Your task to perform on an android device: What is the capital of Italy? Image 0: 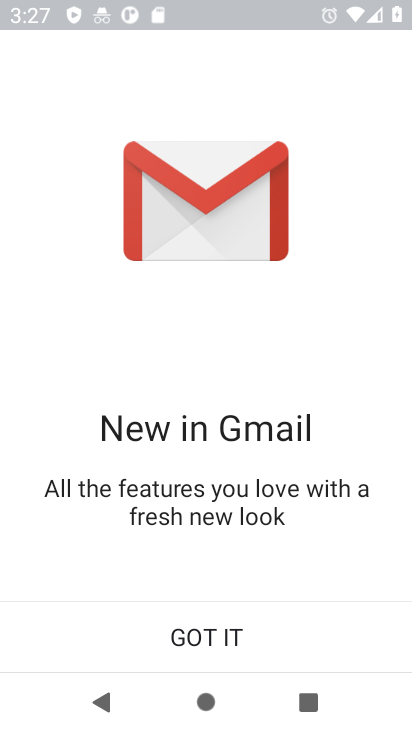
Step 0: press home button
Your task to perform on an android device: What is the capital of Italy? Image 1: 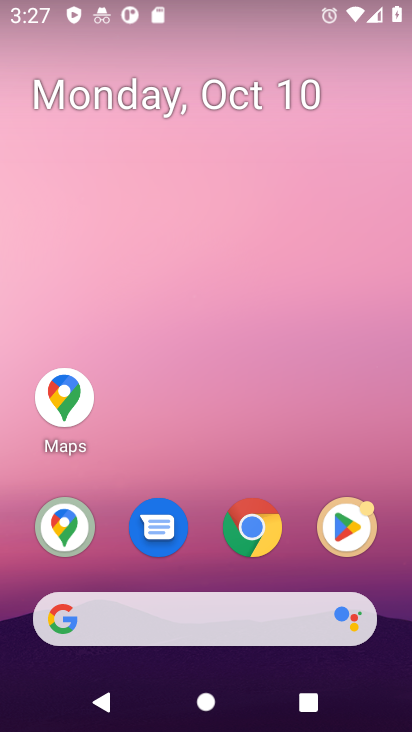
Step 1: drag from (150, 618) to (276, 154)
Your task to perform on an android device: What is the capital of Italy? Image 2: 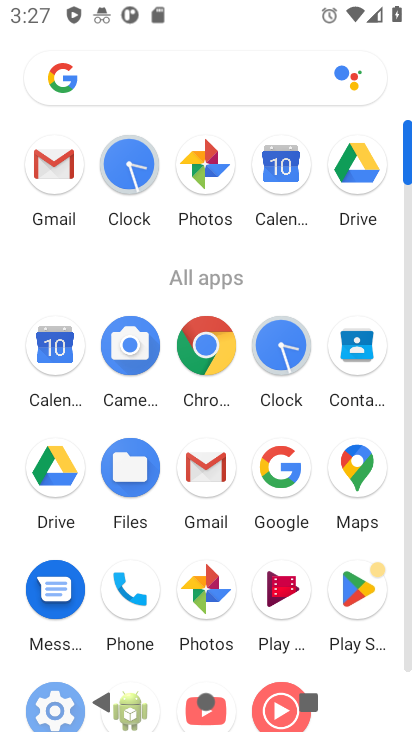
Step 2: click (207, 344)
Your task to perform on an android device: What is the capital of Italy? Image 3: 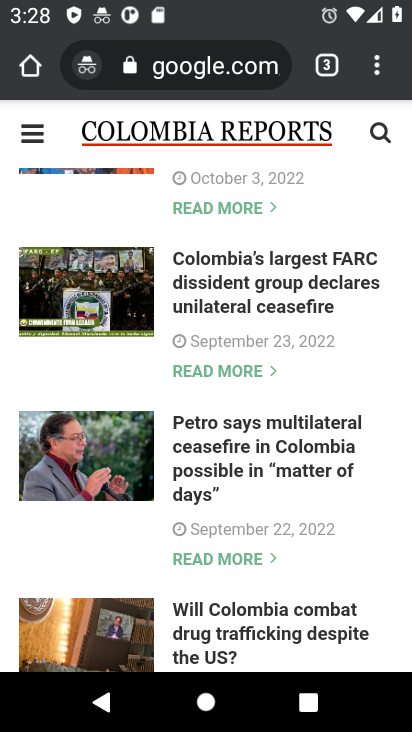
Step 3: click (225, 77)
Your task to perform on an android device: What is the capital of Italy? Image 4: 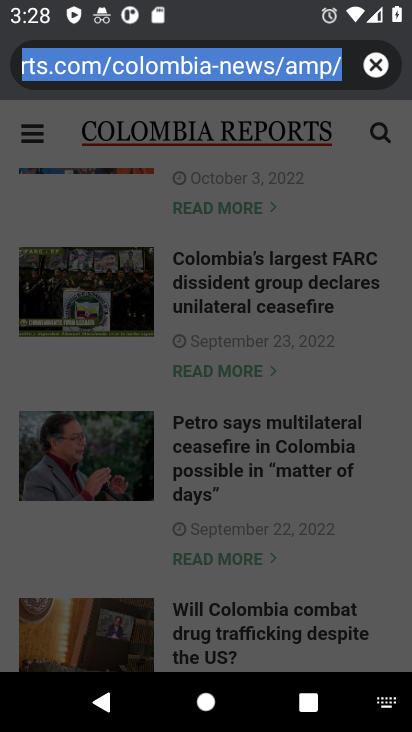
Step 4: click (377, 64)
Your task to perform on an android device: What is the capital of Italy? Image 5: 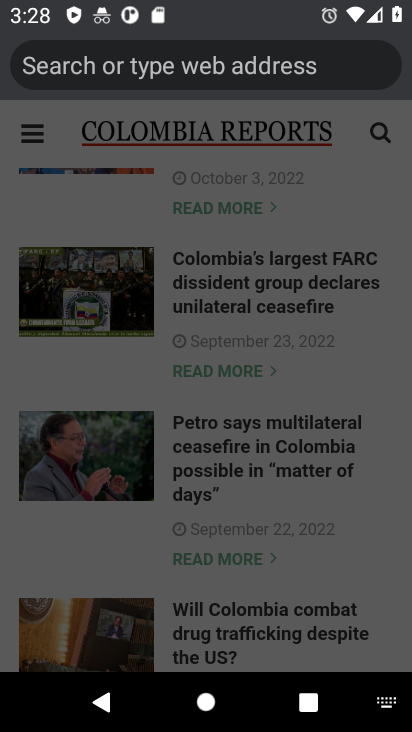
Step 5: click (250, 55)
Your task to perform on an android device: What is the capital of Italy? Image 6: 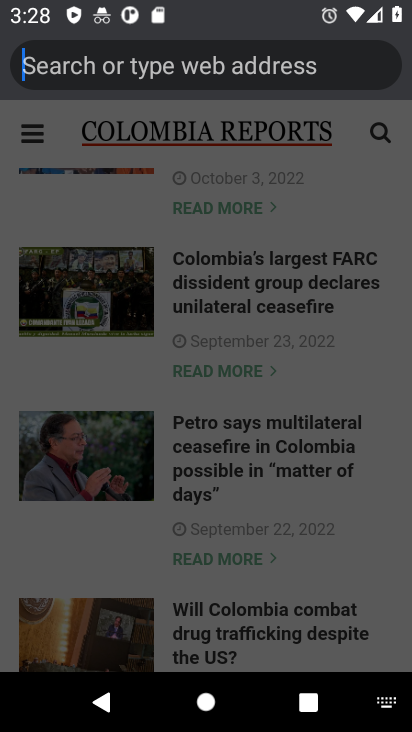
Step 6: type "What is the capital of Italy"
Your task to perform on an android device: What is the capital of Italy? Image 7: 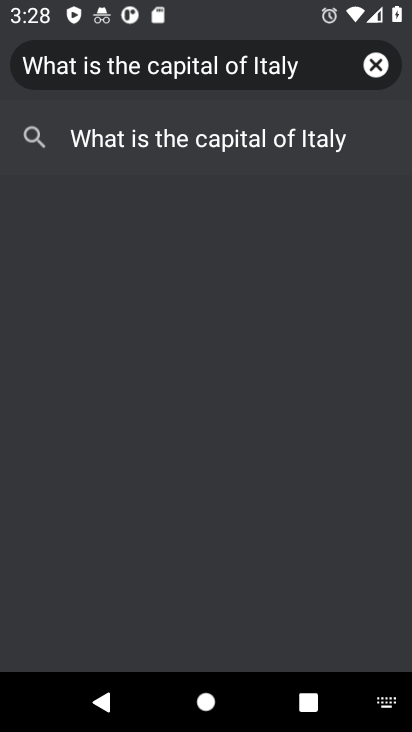
Step 7: click (147, 144)
Your task to perform on an android device: What is the capital of Italy? Image 8: 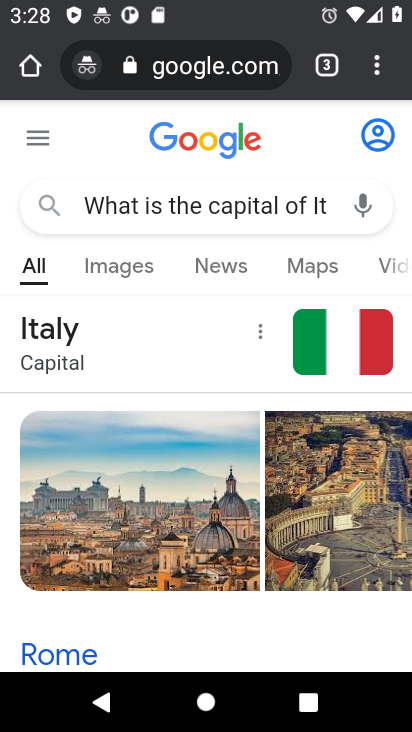
Step 8: task complete